Your task to perform on an android device: Open Wikipedia Image 0: 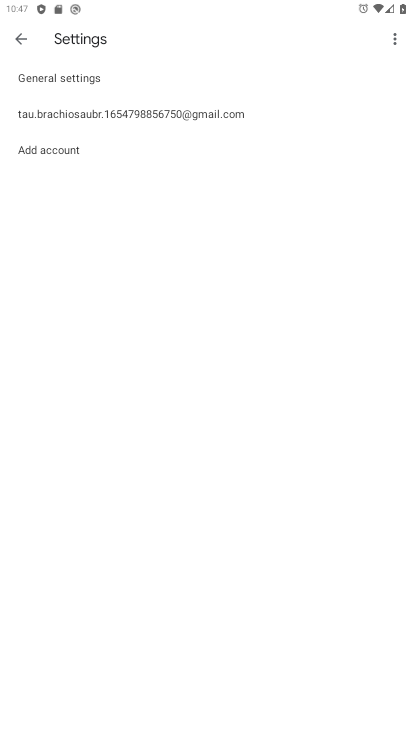
Step 0: press home button
Your task to perform on an android device: Open Wikipedia Image 1: 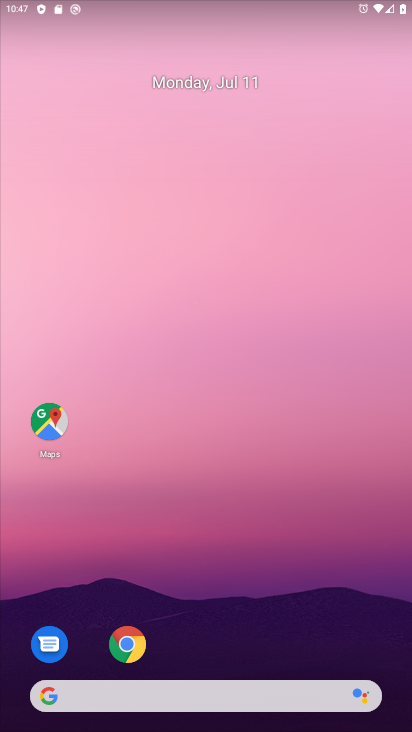
Step 1: drag from (272, 652) to (294, 230)
Your task to perform on an android device: Open Wikipedia Image 2: 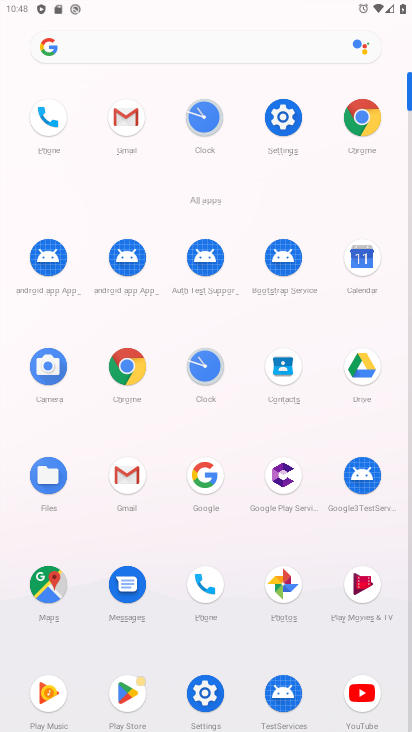
Step 2: click (350, 129)
Your task to perform on an android device: Open Wikipedia Image 3: 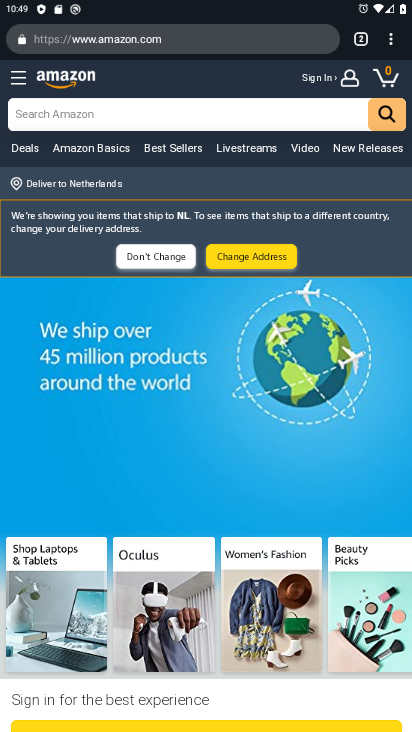
Step 3: click (108, 28)
Your task to perform on an android device: Open Wikipedia Image 4: 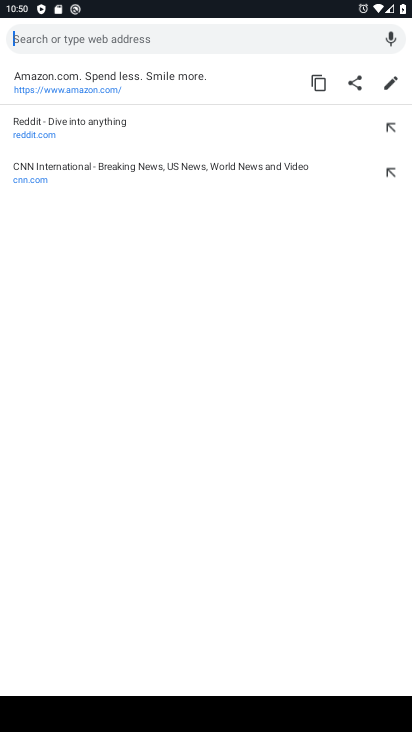
Step 4: type " Wikipedia"
Your task to perform on an android device: Open Wikipedia Image 5: 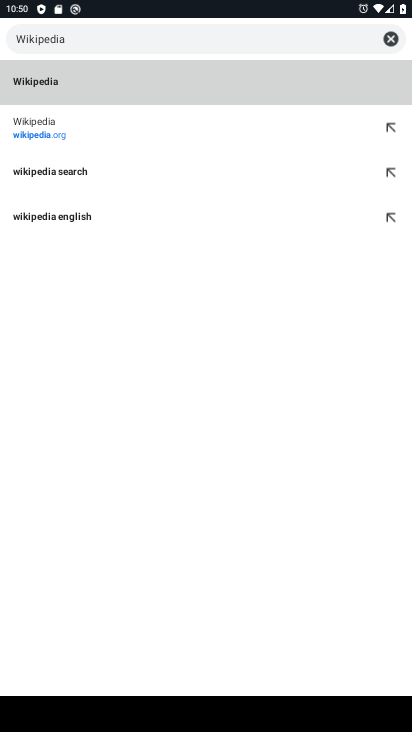
Step 5: click (44, 128)
Your task to perform on an android device: Open Wikipedia Image 6: 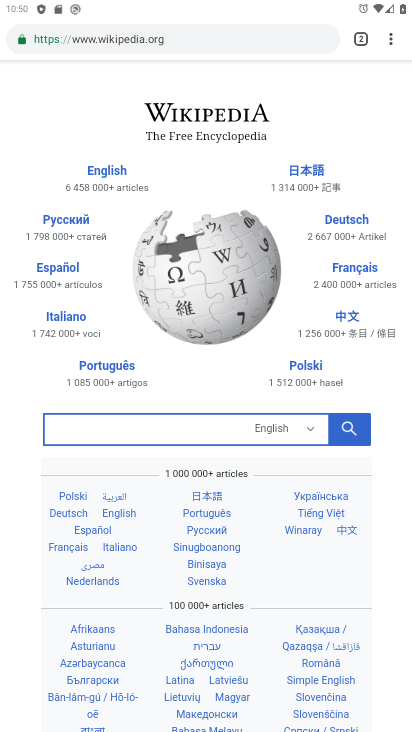
Step 6: task complete